Your task to perform on an android device: add a contact Image 0: 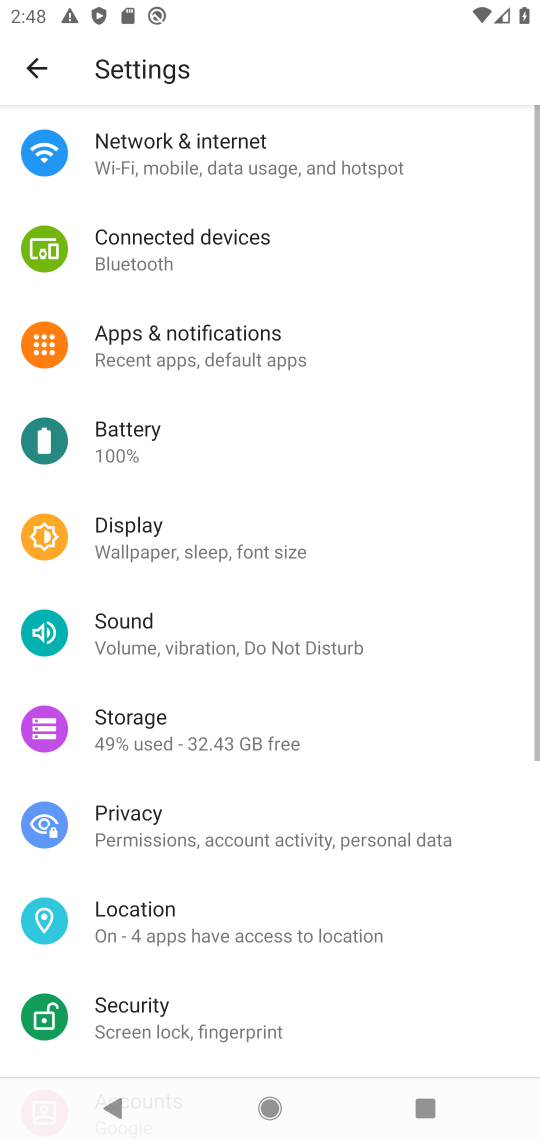
Step 0: press home button
Your task to perform on an android device: add a contact Image 1: 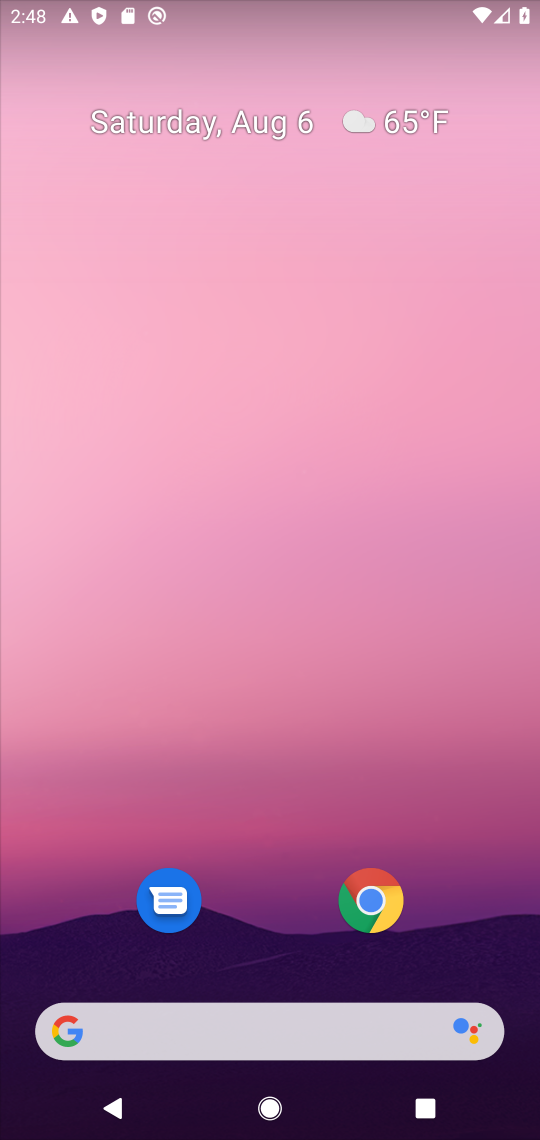
Step 1: drag from (262, 883) to (301, 47)
Your task to perform on an android device: add a contact Image 2: 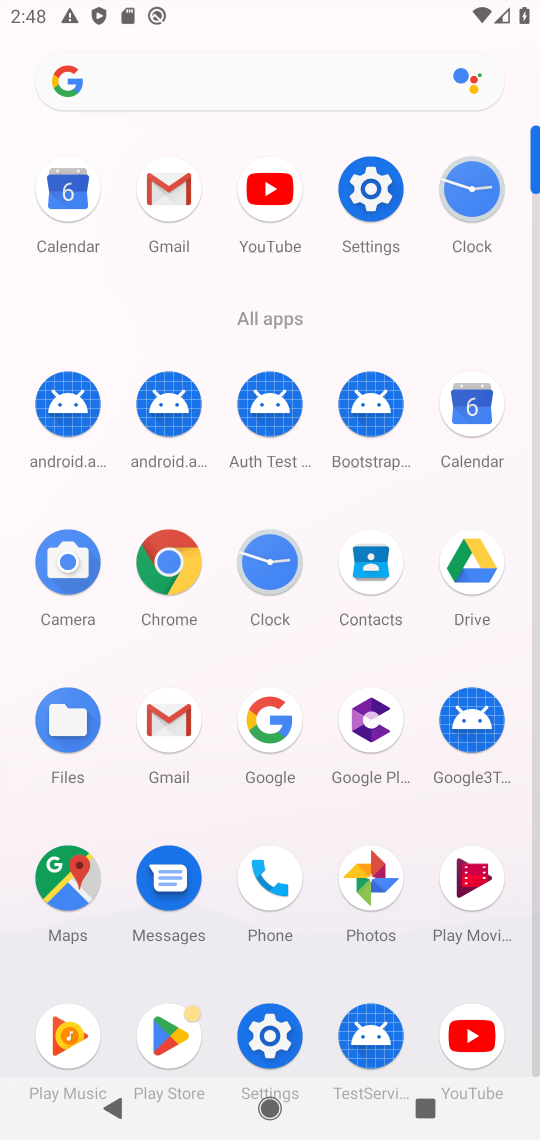
Step 2: click (363, 558)
Your task to perform on an android device: add a contact Image 3: 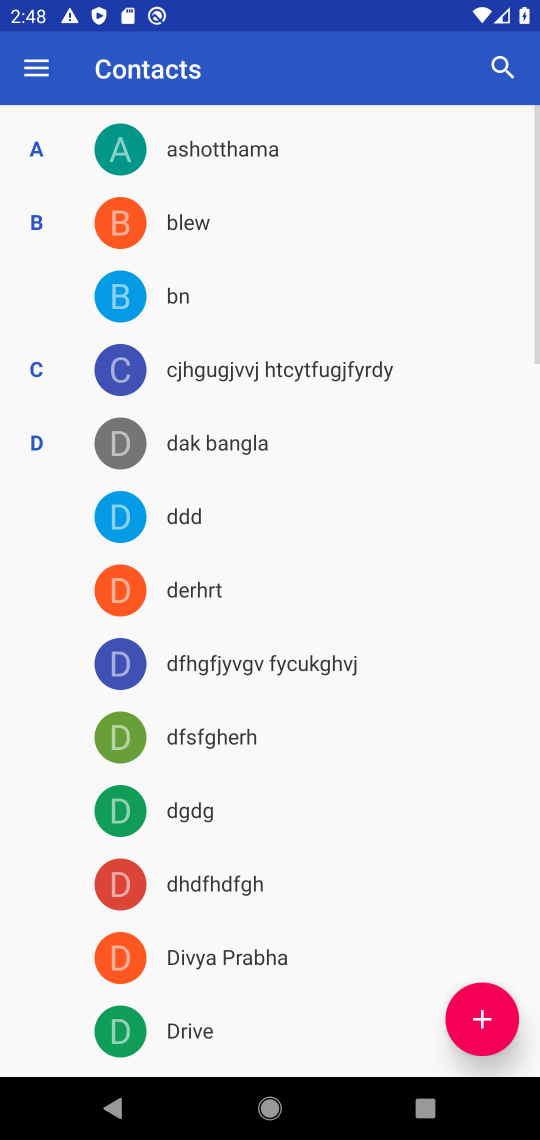
Step 3: click (488, 1017)
Your task to perform on an android device: add a contact Image 4: 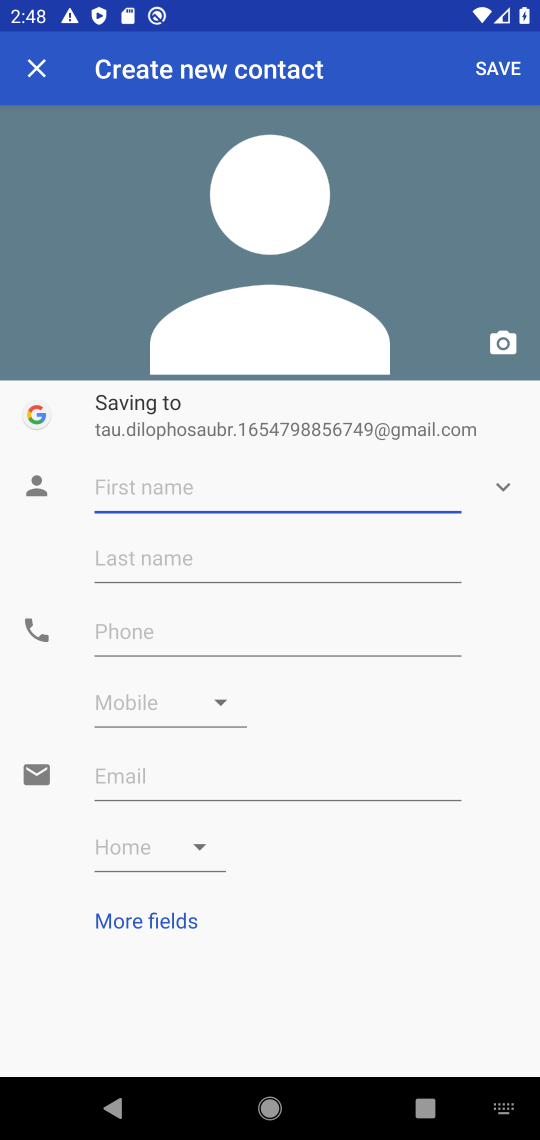
Step 4: type "gfgfghjhghhghghg"
Your task to perform on an android device: add a contact Image 5: 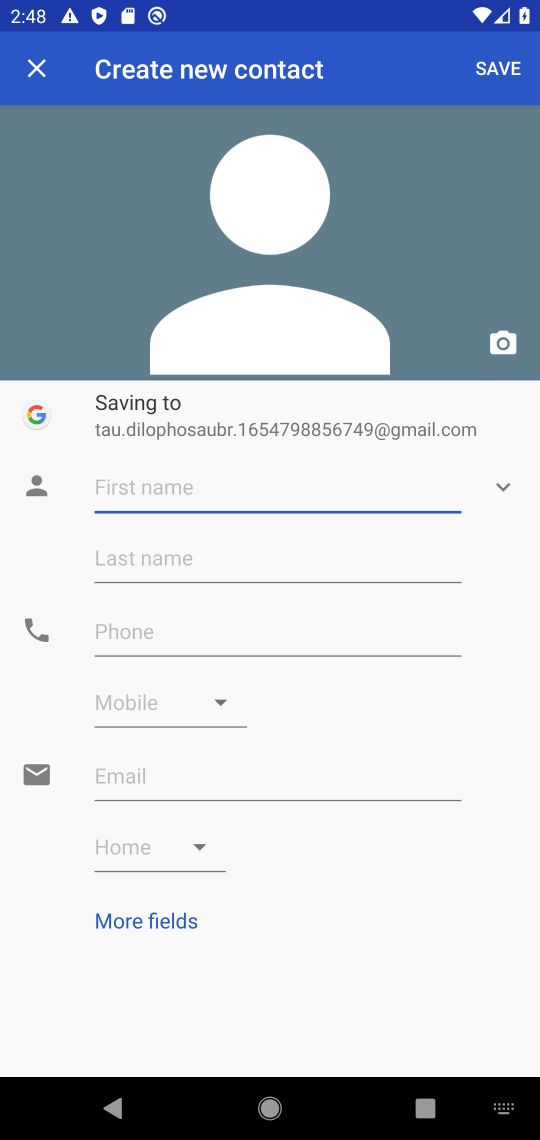
Step 5: click (223, 493)
Your task to perform on an android device: add a contact Image 6: 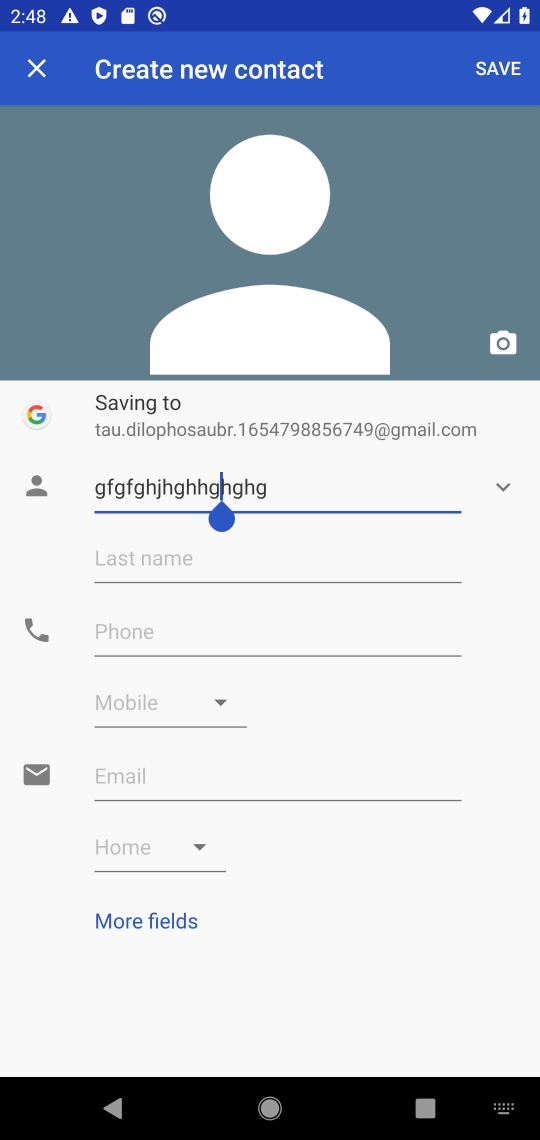
Step 6: click (210, 635)
Your task to perform on an android device: add a contact Image 7: 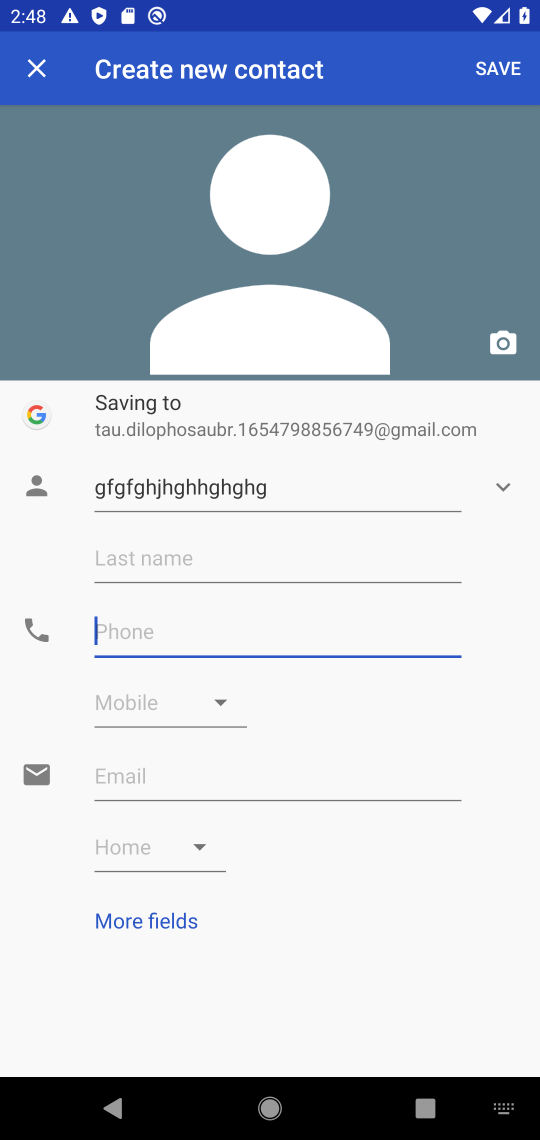
Step 7: type "6566556"
Your task to perform on an android device: add a contact Image 8: 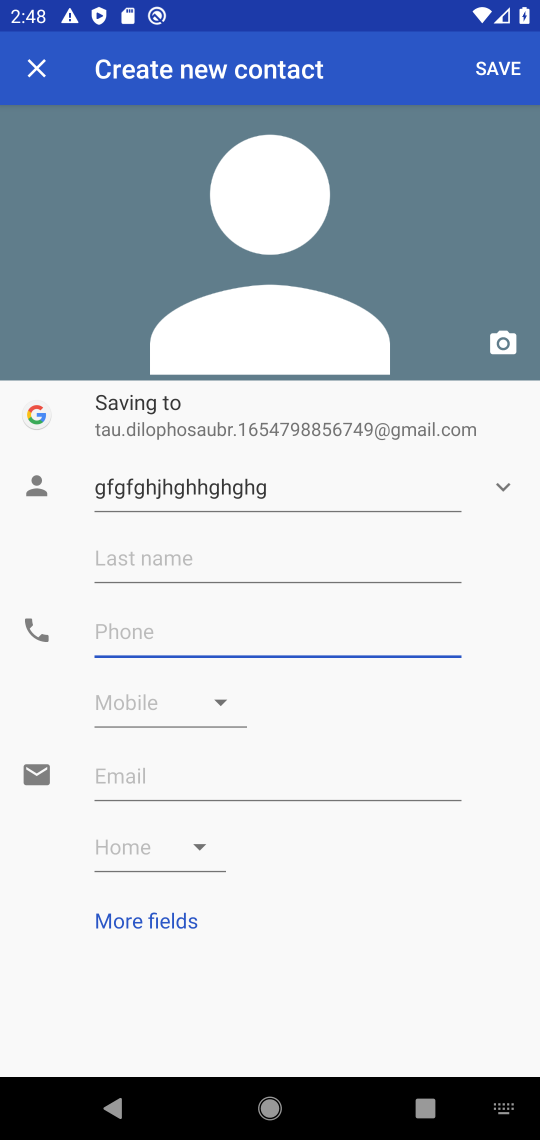
Step 8: click (198, 626)
Your task to perform on an android device: add a contact Image 9: 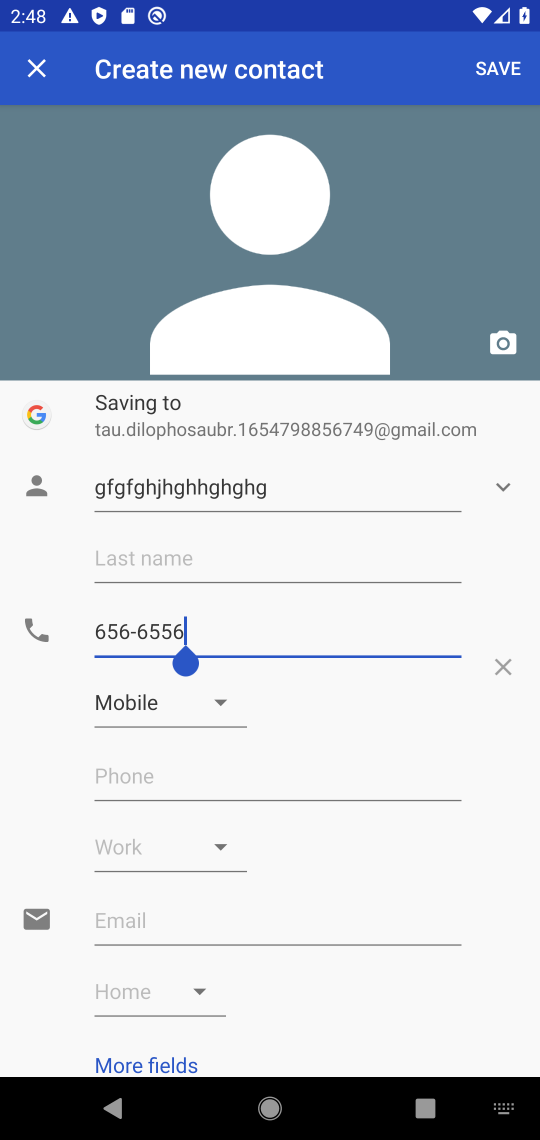
Step 9: click (508, 61)
Your task to perform on an android device: add a contact Image 10: 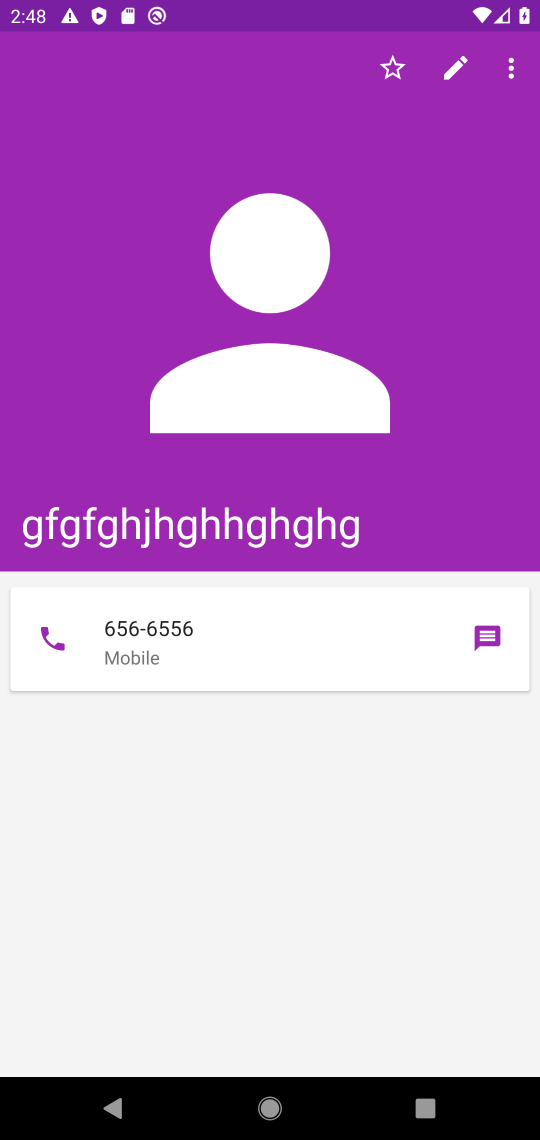
Step 10: task complete